Your task to perform on an android device: change the clock display to show seconds Image 0: 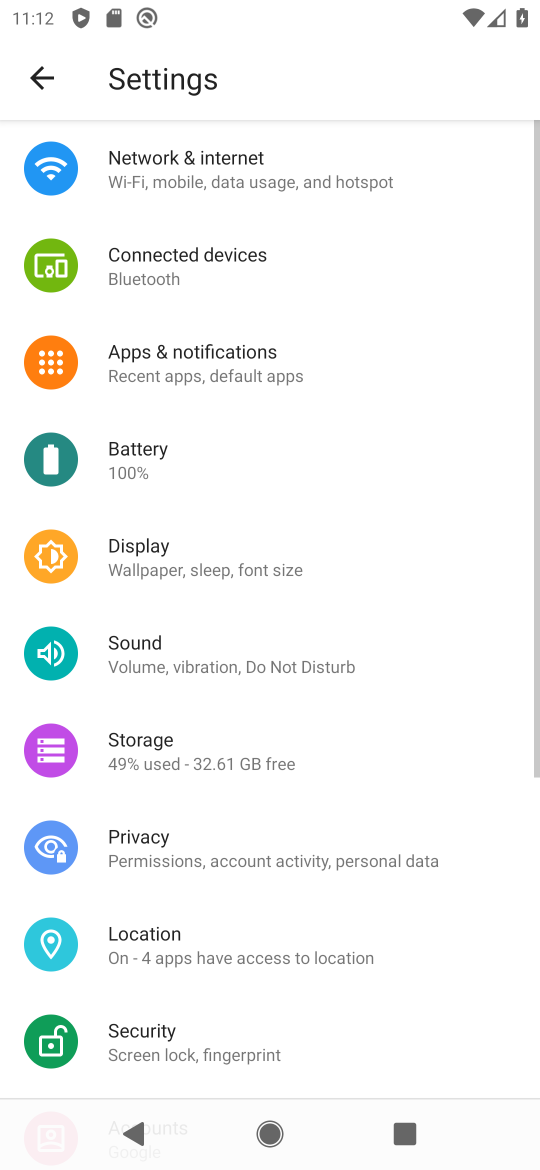
Step 0: press home button
Your task to perform on an android device: change the clock display to show seconds Image 1: 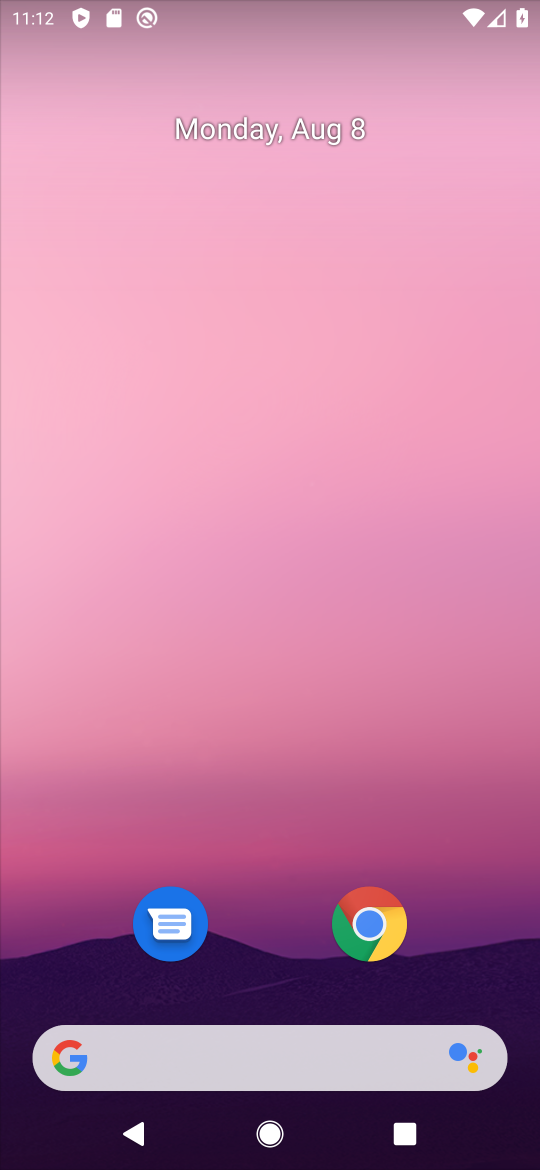
Step 1: drag from (289, 972) to (400, 12)
Your task to perform on an android device: change the clock display to show seconds Image 2: 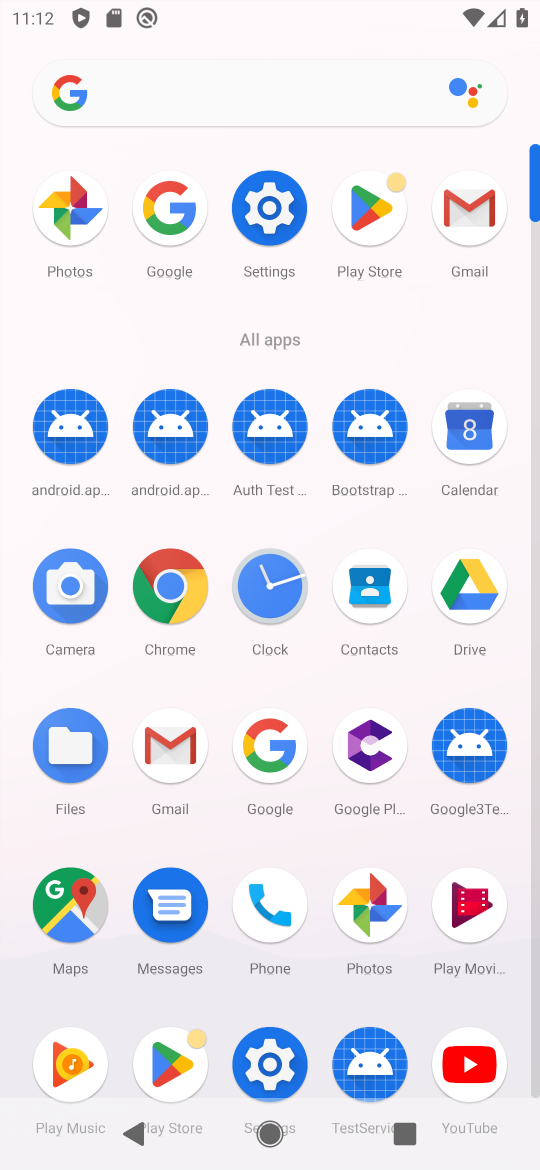
Step 2: click (294, 619)
Your task to perform on an android device: change the clock display to show seconds Image 3: 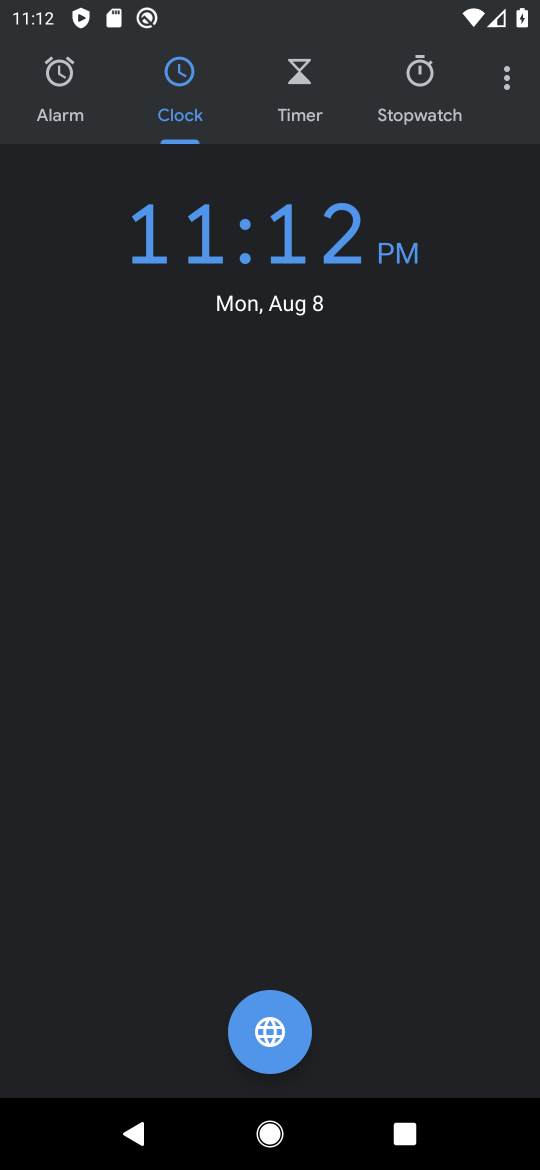
Step 3: click (505, 89)
Your task to perform on an android device: change the clock display to show seconds Image 4: 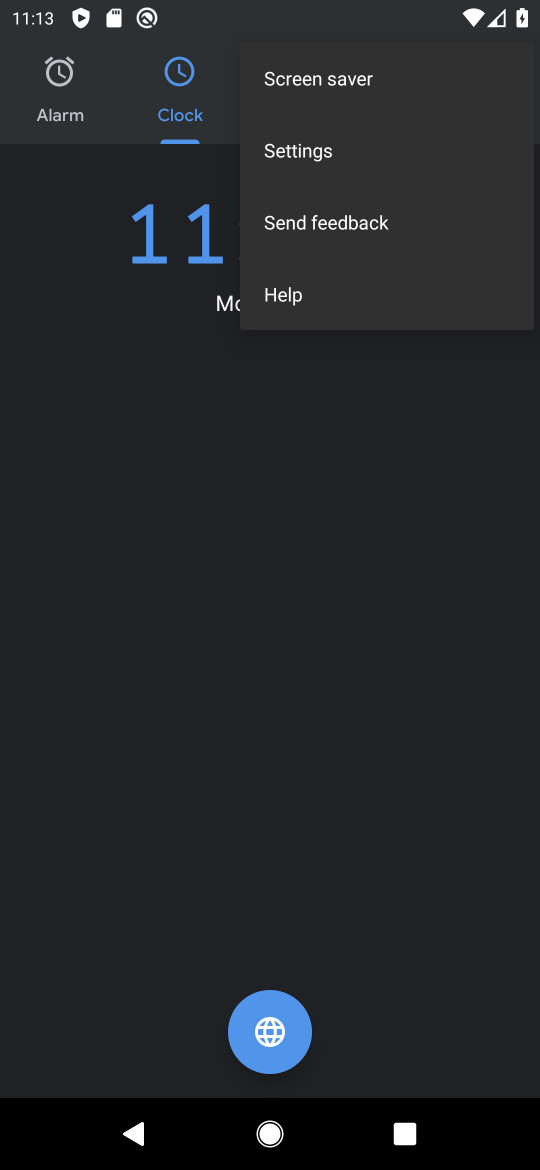
Step 4: click (380, 141)
Your task to perform on an android device: change the clock display to show seconds Image 5: 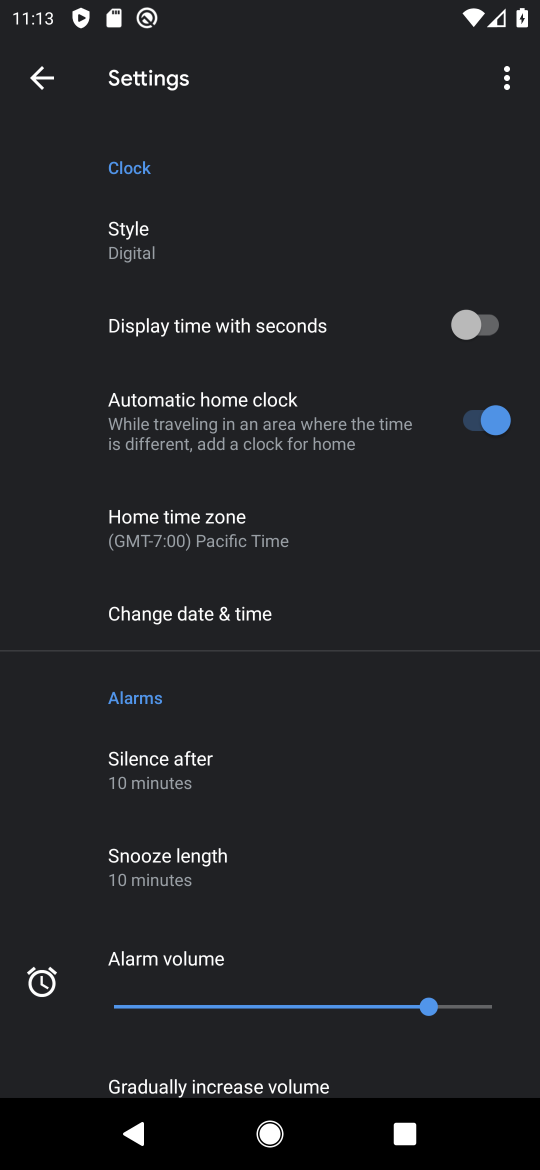
Step 5: click (468, 313)
Your task to perform on an android device: change the clock display to show seconds Image 6: 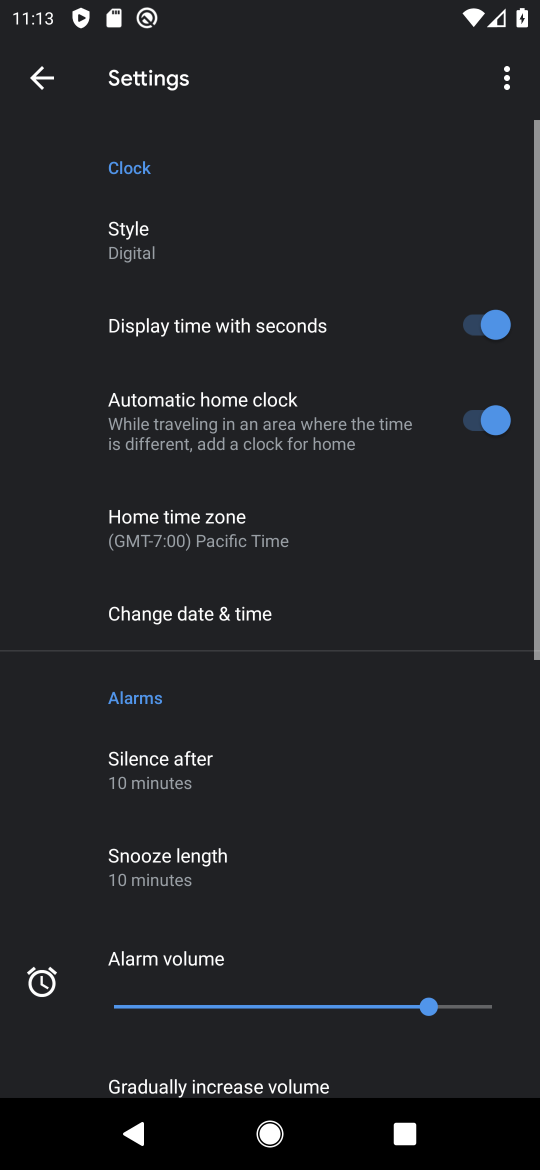
Step 6: task complete